Your task to perform on an android device: Open battery settings Image 0: 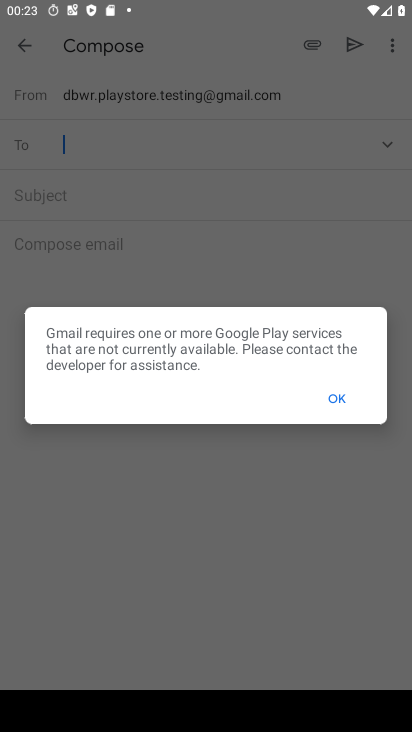
Step 0: press home button
Your task to perform on an android device: Open battery settings Image 1: 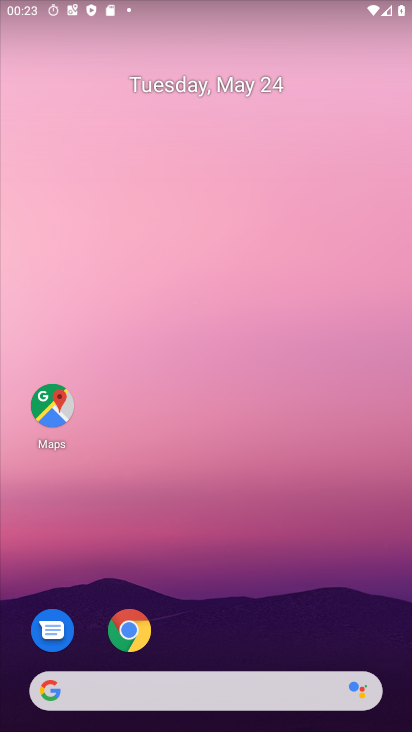
Step 1: drag from (228, 657) to (288, 1)
Your task to perform on an android device: Open battery settings Image 2: 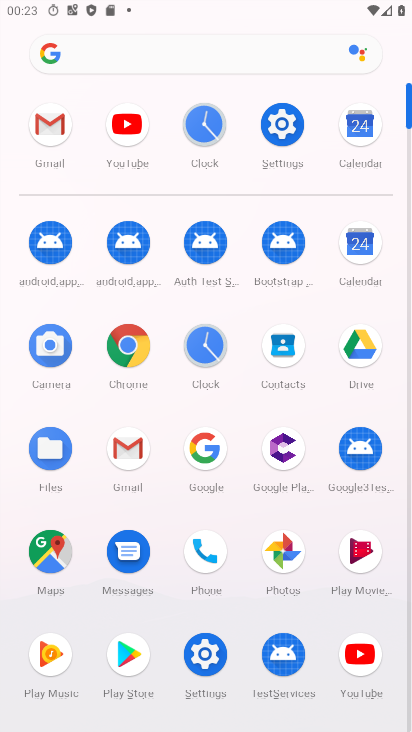
Step 2: click (279, 122)
Your task to perform on an android device: Open battery settings Image 3: 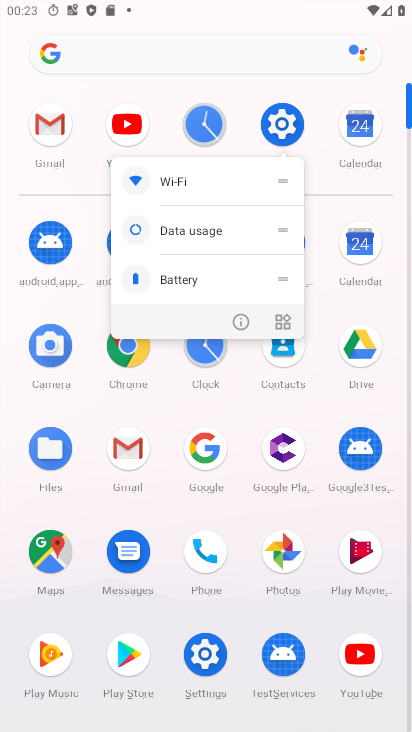
Step 3: click (279, 122)
Your task to perform on an android device: Open battery settings Image 4: 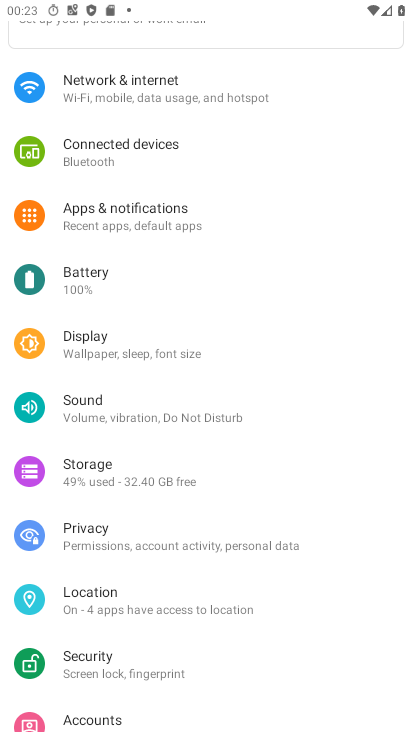
Step 4: click (66, 288)
Your task to perform on an android device: Open battery settings Image 5: 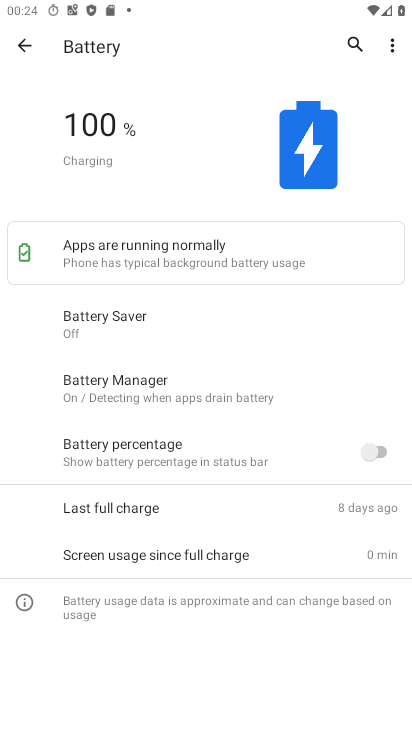
Step 5: task complete